Your task to perform on an android device: toggle data saver in the chrome app Image 0: 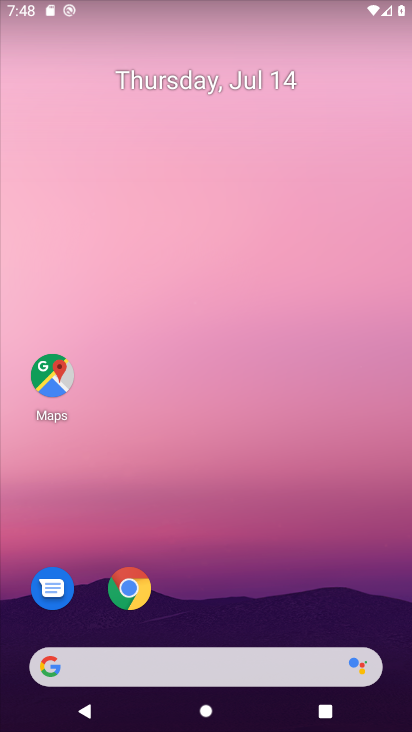
Step 0: drag from (222, 645) to (202, 250)
Your task to perform on an android device: toggle data saver in the chrome app Image 1: 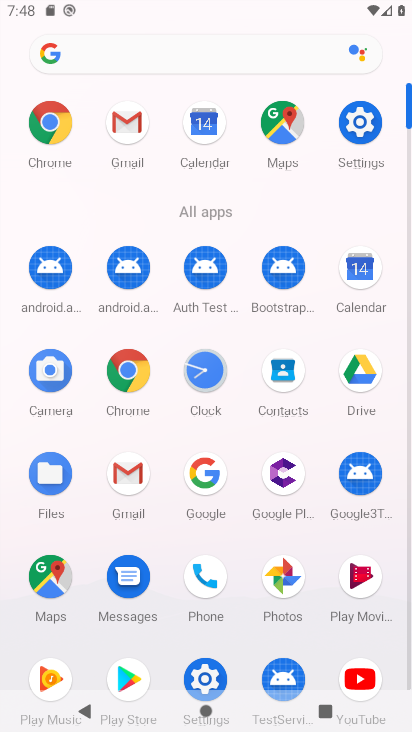
Step 1: click (53, 133)
Your task to perform on an android device: toggle data saver in the chrome app Image 2: 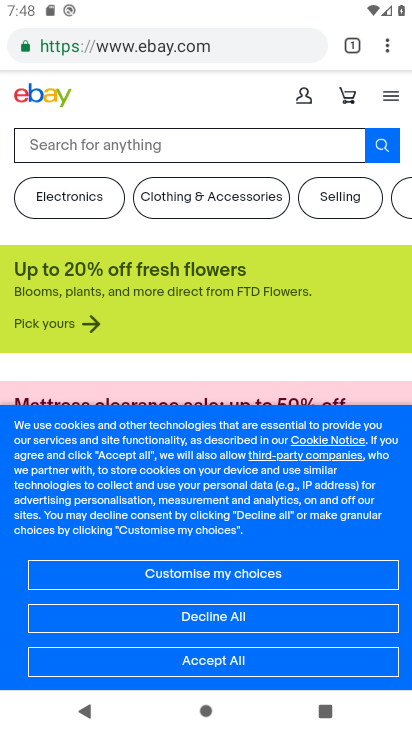
Step 2: drag from (381, 41) to (234, 546)
Your task to perform on an android device: toggle data saver in the chrome app Image 3: 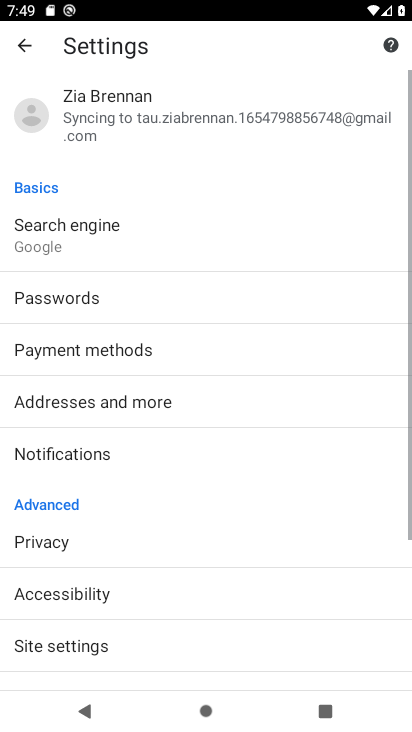
Step 3: drag from (225, 518) to (191, 145)
Your task to perform on an android device: toggle data saver in the chrome app Image 4: 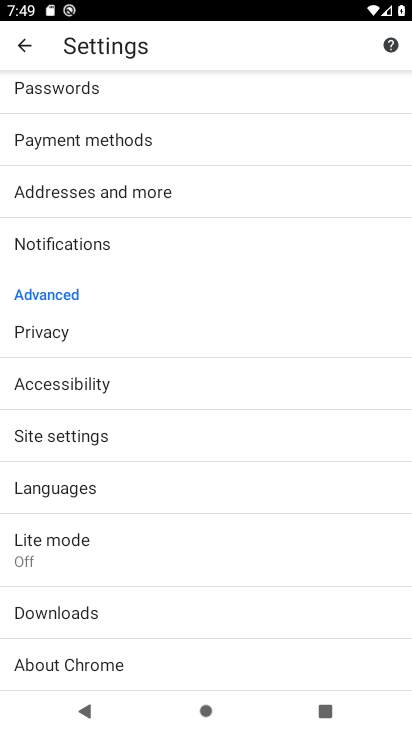
Step 4: click (132, 569)
Your task to perform on an android device: toggle data saver in the chrome app Image 5: 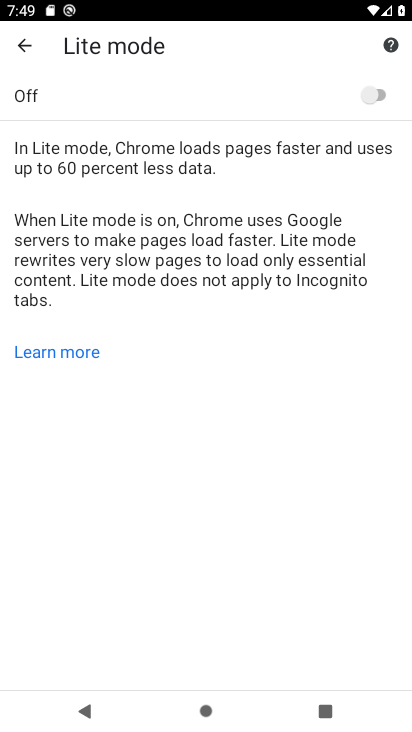
Step 5: click (377, 89)
Your task to perform on an android device: toggle data saver in the chrome app Image 6: 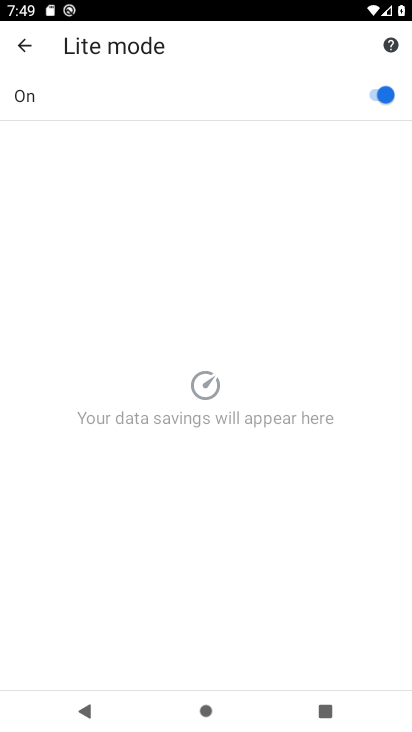
Step 6: task complete